Your task to perform on an android device: Search for pizza restaurants on Maps Image 0: 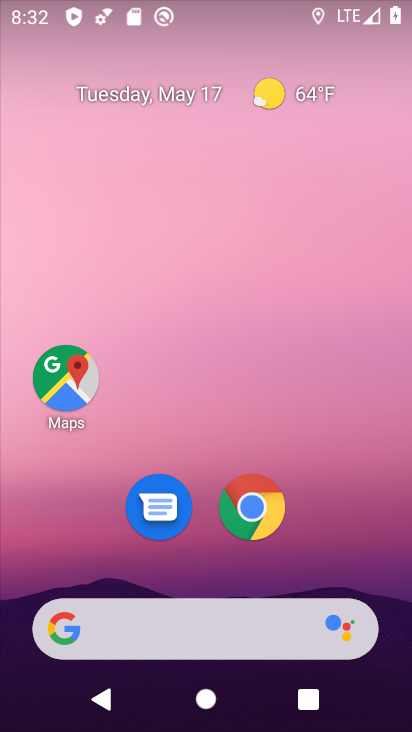
Step 0: click (69, 380)
Your task to perform on an android device: Search for pizza restaurants on Maps Image 1: 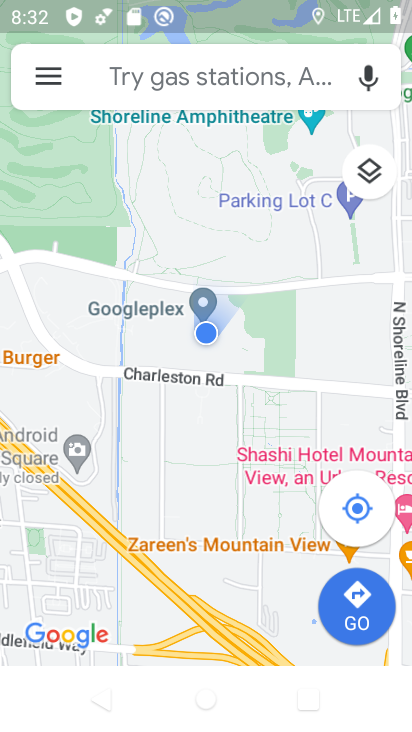
Step 1: click (170, 78)
Your task to perform on an android device: Search for pizza restaurants on Maps Image 2: 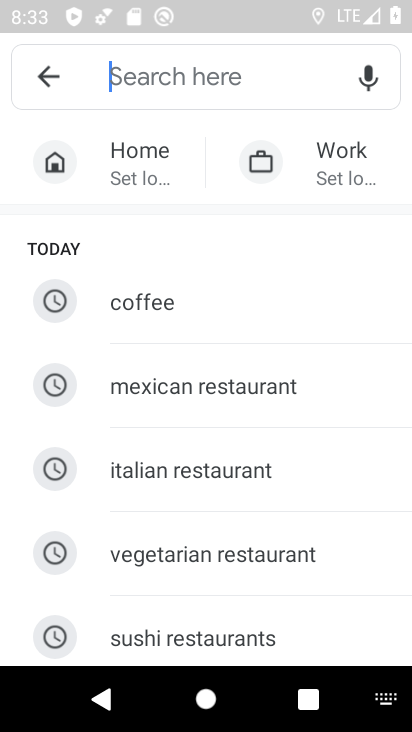
Step 2: type "pizza restaurants"
Your task to perform on an android device: Search for pizza restaurants on Maps Image 3: 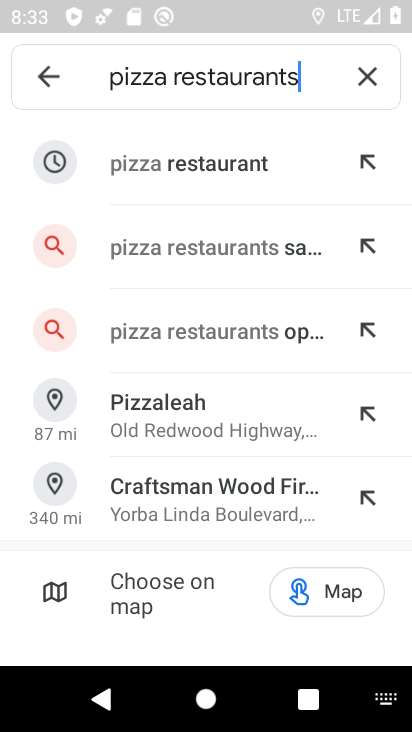
Step 3: click (159, 169)
Your task to perform on an android device: Search for pizza restaurants on Maps Image 4: 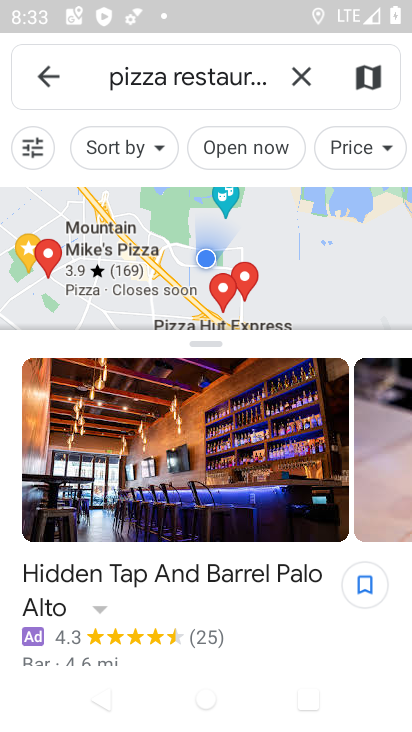
Step 4: drag from (243, 592) to (215, 420)
Your task to perform on an android device: Search for pizza restaurants on Maps Image 5: 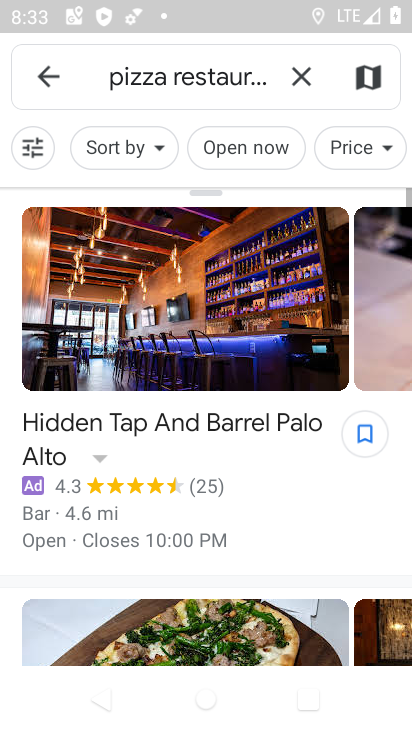
Step 5: drag from (280, 565) to (276, 376)
Your task to perform on an android device: Search for pizza restaurants on Maps Image 6: 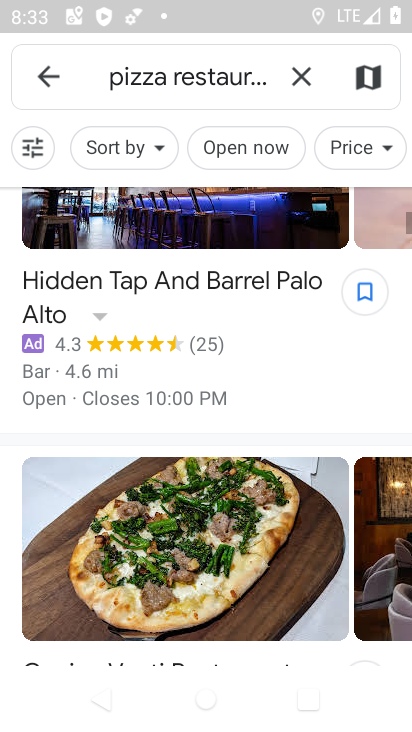
Step 6: drag from (228, 589) to (283, 336)
Your task to perform on an android device: Search for pizza restaurants on Maps Image 7: 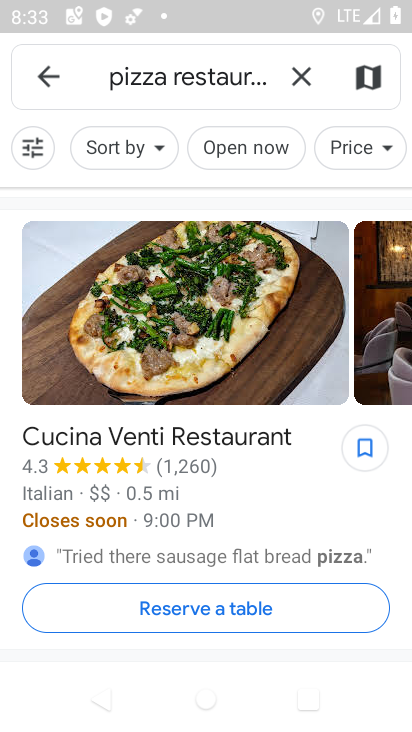
Step 7: click (238, 367)
Your task to perform on an android device: Search for pizza restaurants on Maps Image 8: 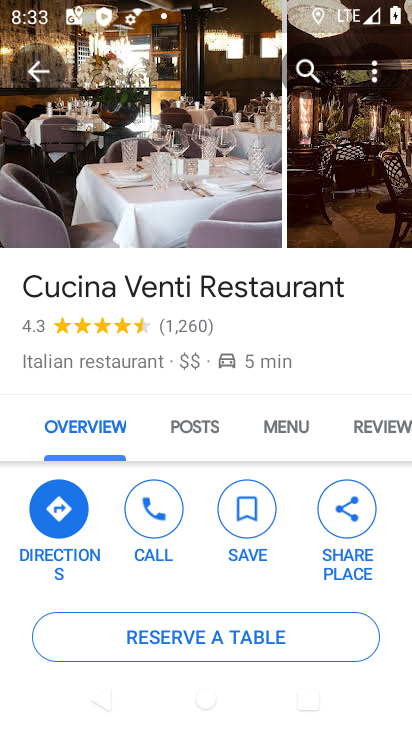
Step 8: task complete